Your task to perform on an android device: allow notifications from all sites in the chrome app Image 0: 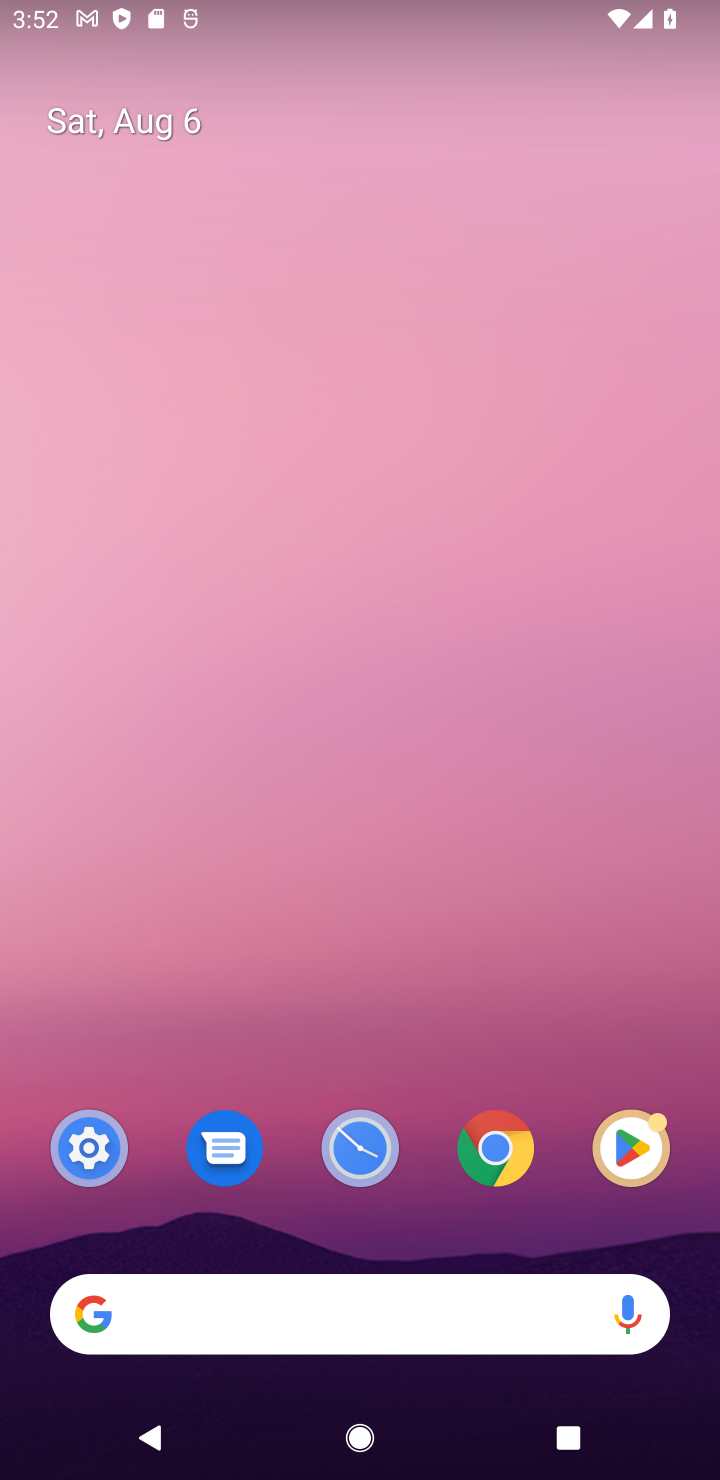
Step 0: drag from (290, 909) to (344, 398)
Your task to perform on an android device: allow notifications from all sites in the chrome app Image 1: 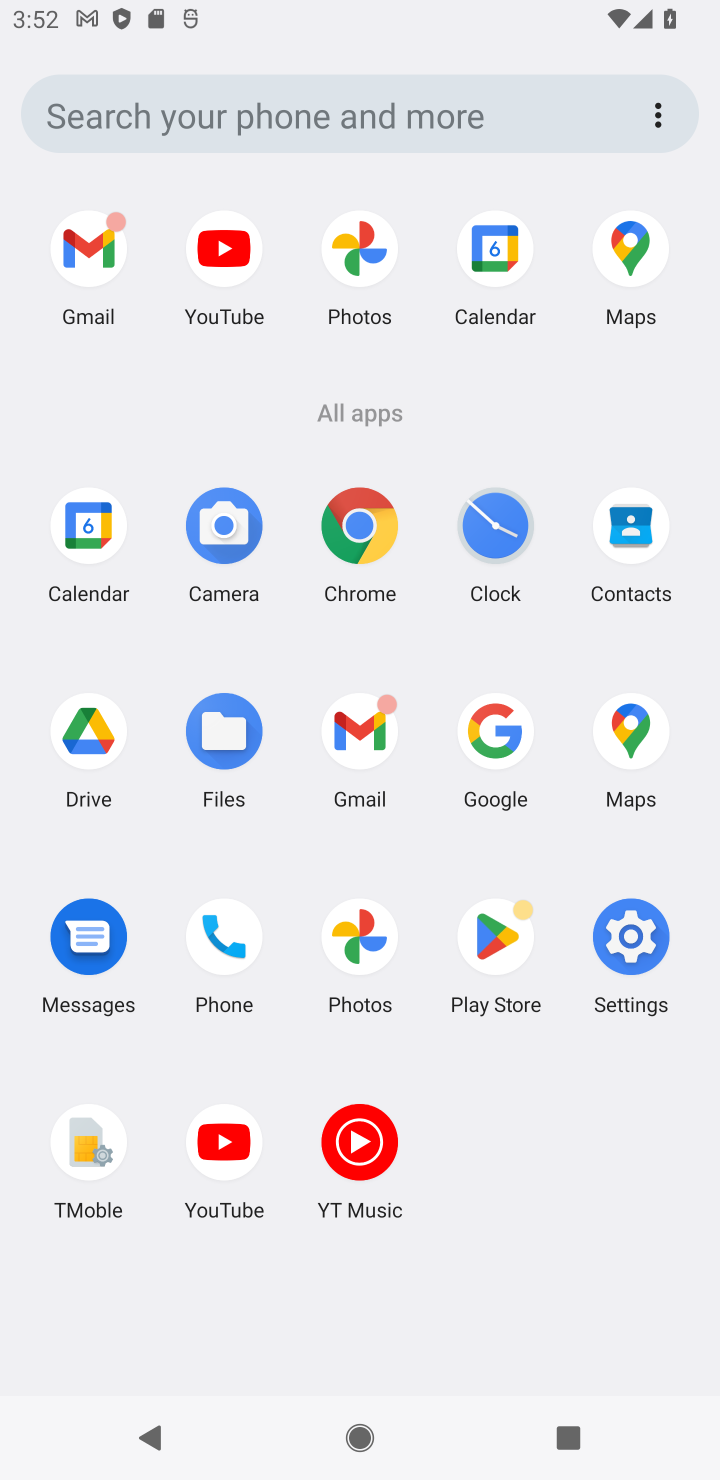
Step 1: click (345, 535)
Your task to perform on an android device: allow notifications from all sites in the chrome app Image 2: 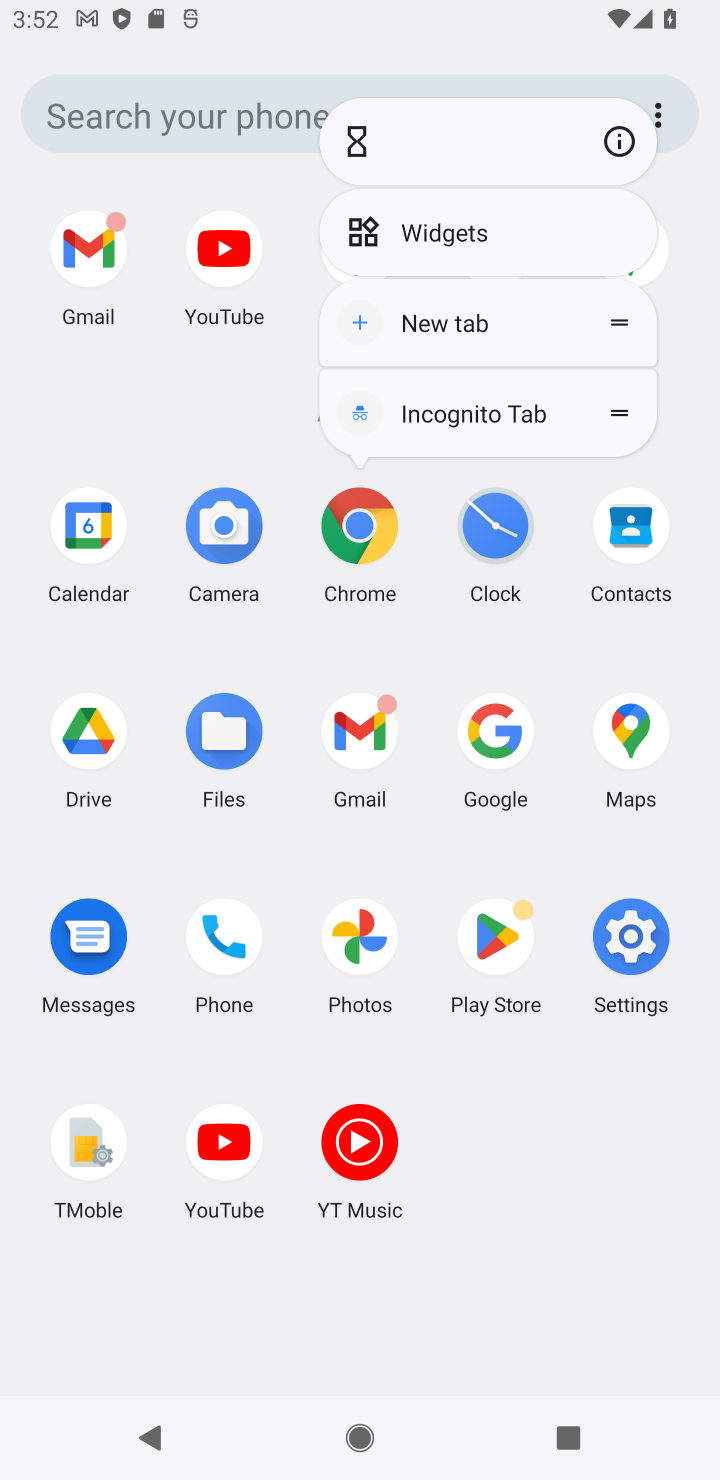
Step 2: click (606, 133)
Your task to perform on an android device: allow notifications from all sites in the chrome app Image 3: 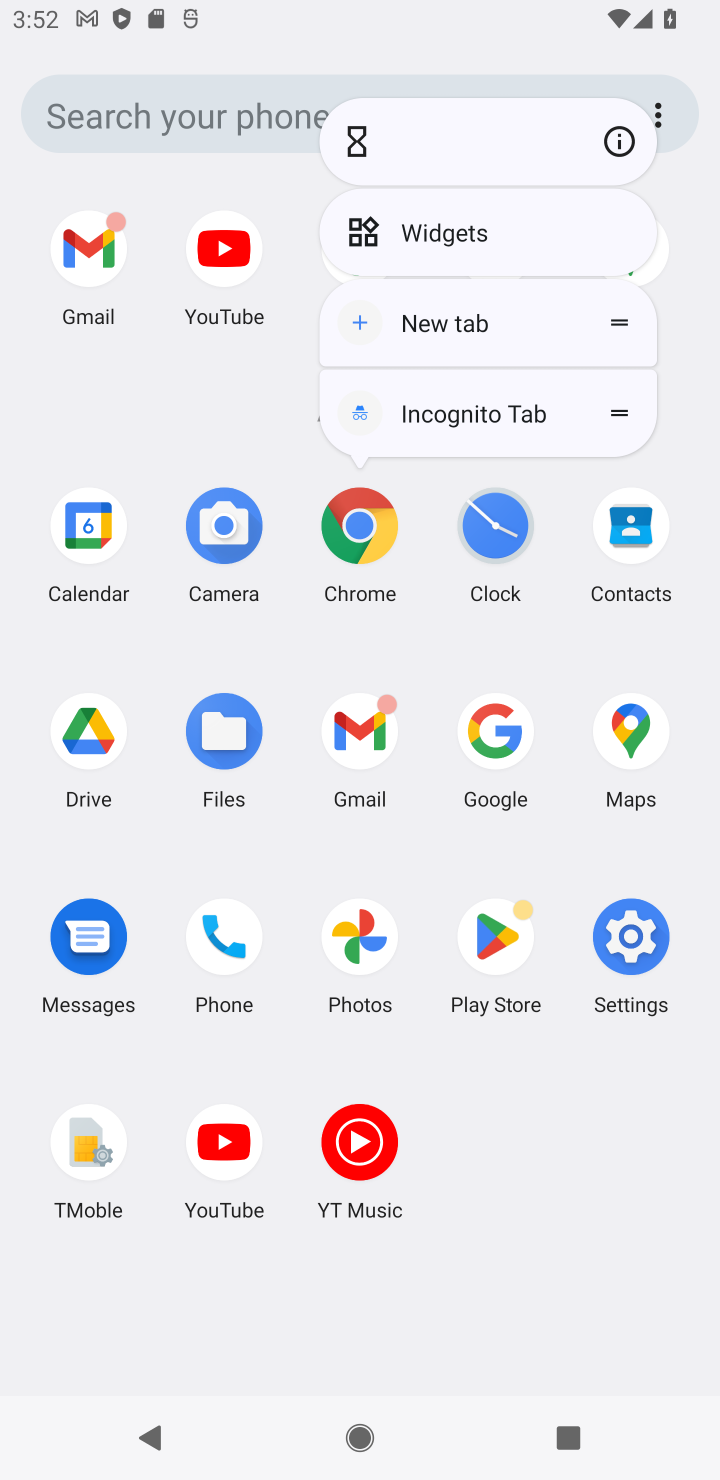
Step 3: click (613, 160)
Your task to perform on an android device: allow notifications from all sites in the chrome app Image 4: 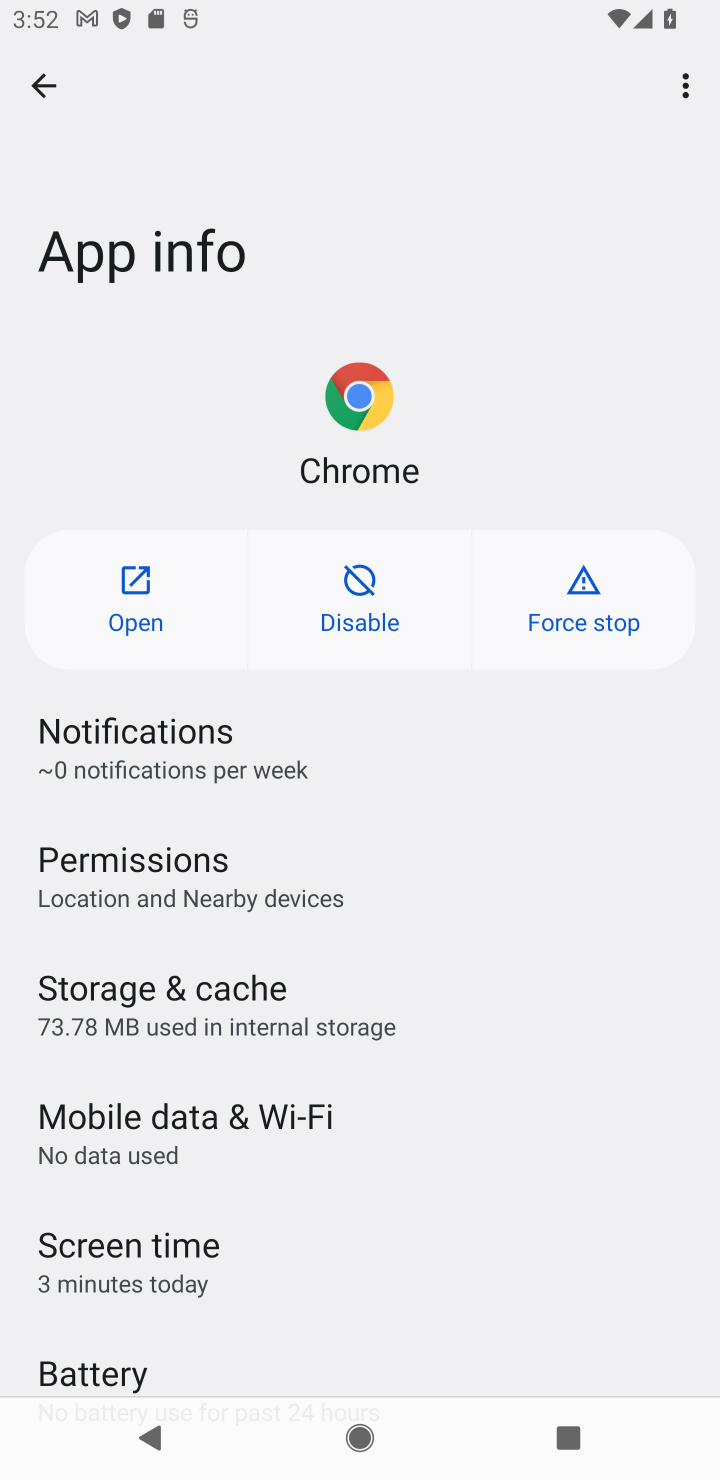
Step 4: click (116, 628)
Your task to perform on an android device: allow notifications from all sites in the chrome app Image 5: 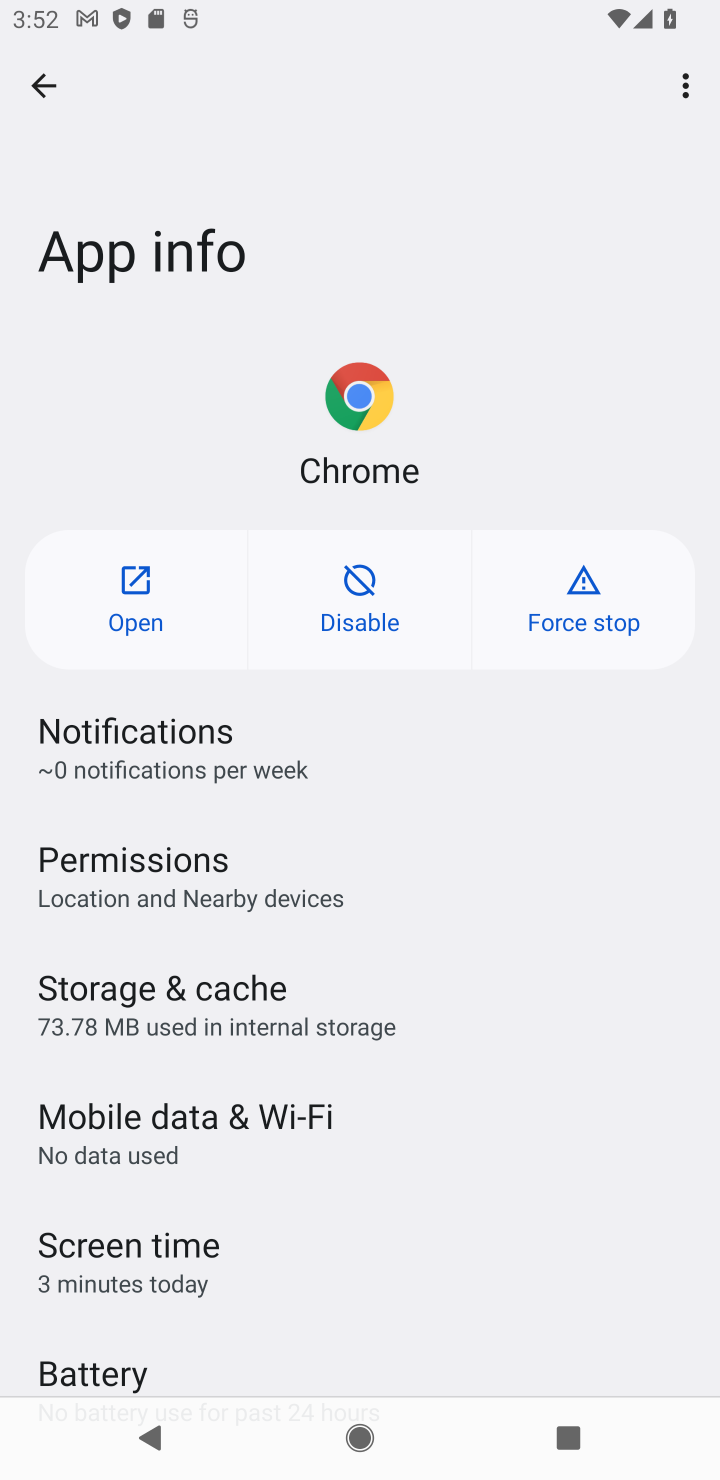
Step 5: click (114, 605)
Your task to perform on an android device: allow notifications from all sites in the chrome app Image 6: 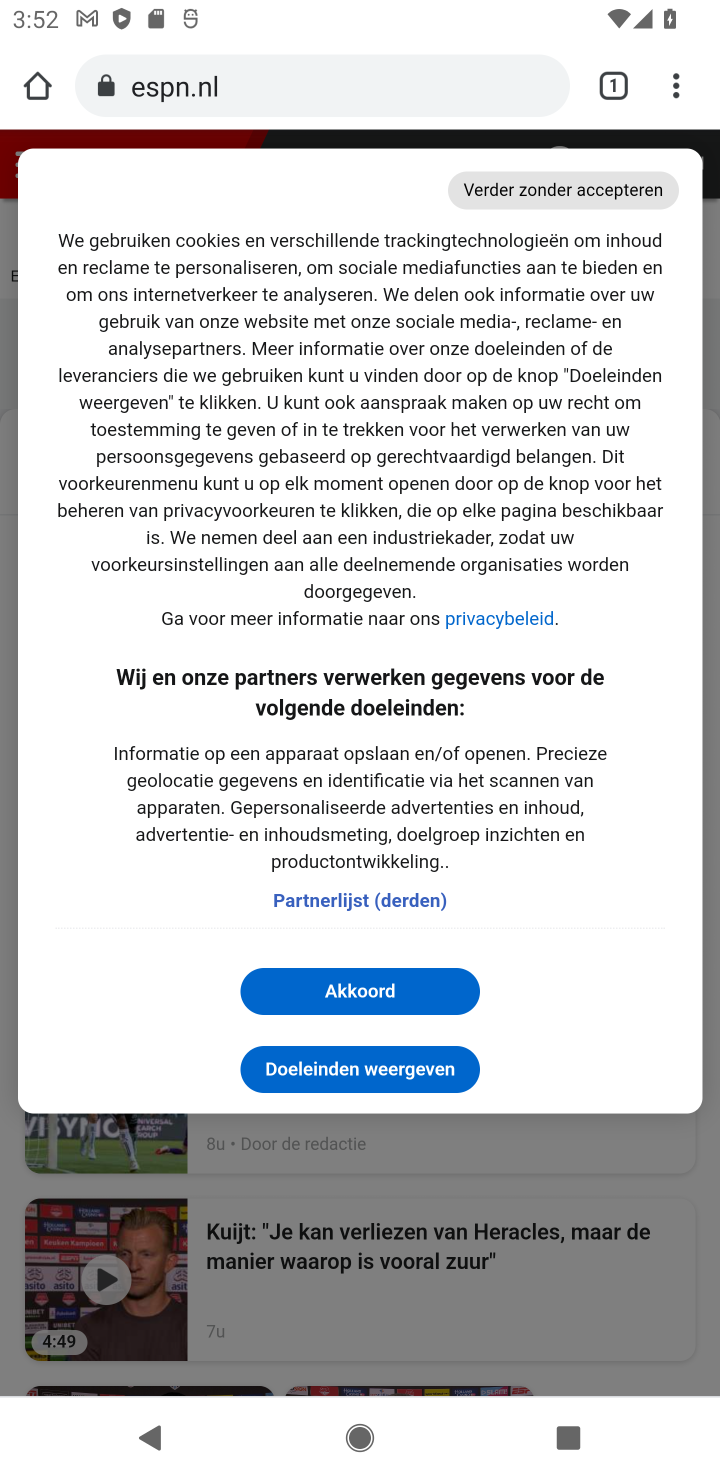
Step 6: drag from (666, 89) to (452, 1034)
Your task to perform on an android device: allow notifications from all sites in the chrome app Image 7: 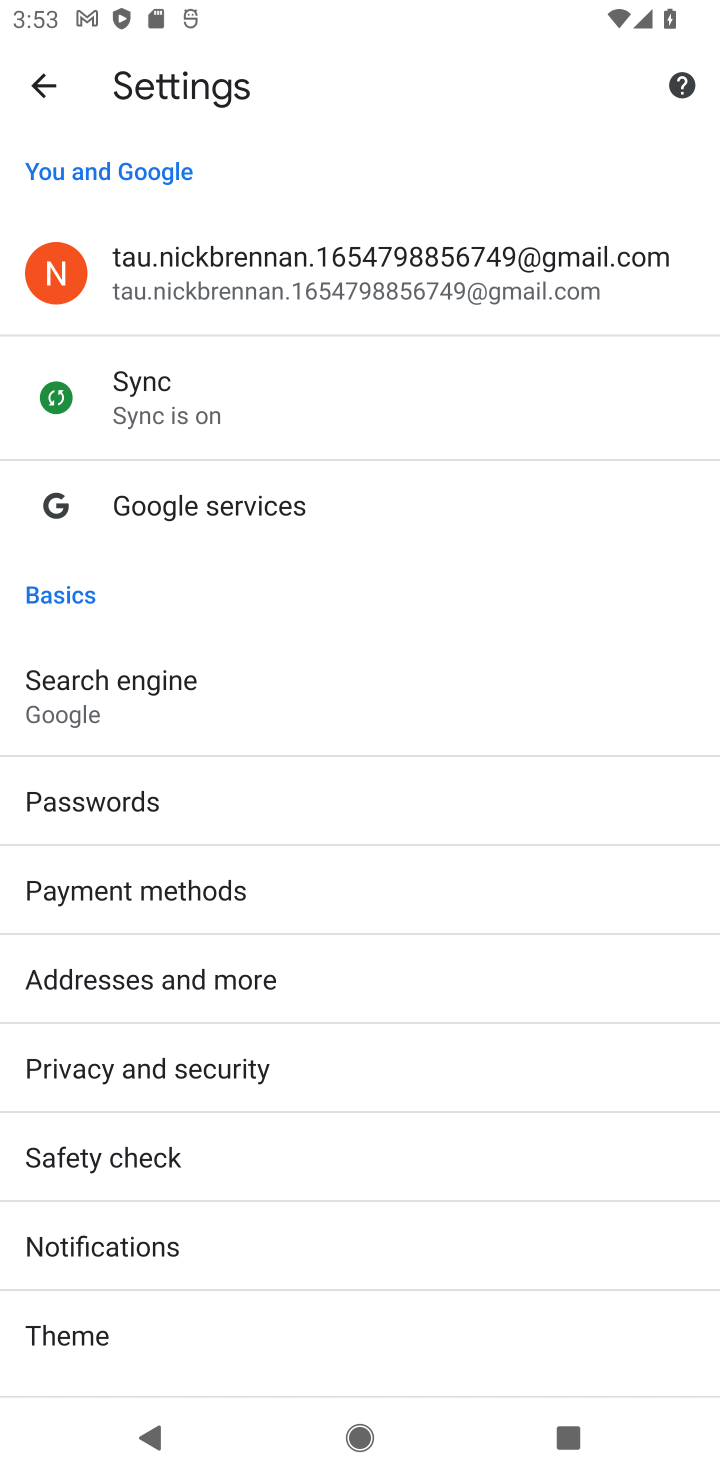
Step 7: drag from (261, 1240) to (344, 482)
Your task to perform on an android device: allow notifications from all sites in the chrome app Image 8: 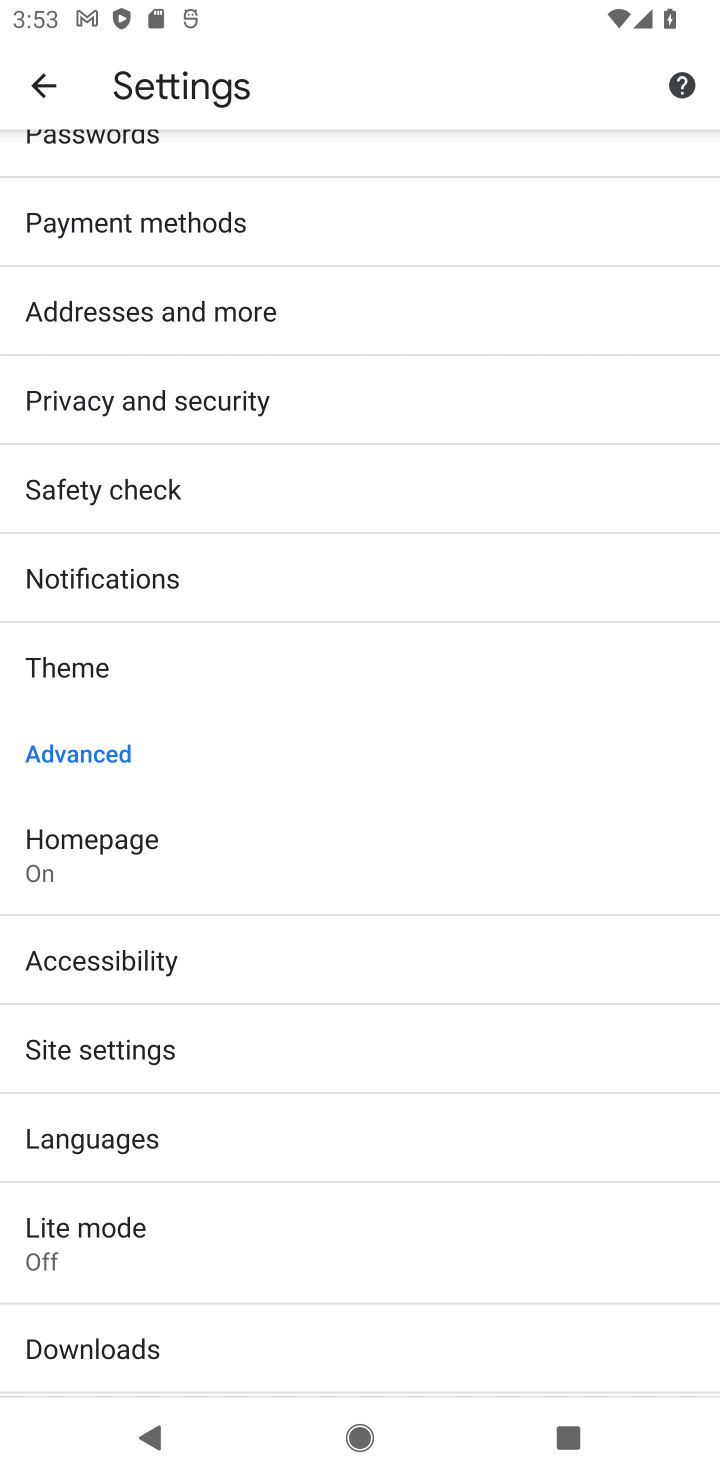
Step 8: click (175, 1038)
Your task to perform on an android device: allow notifications from all sites in the chrome app Image 9: 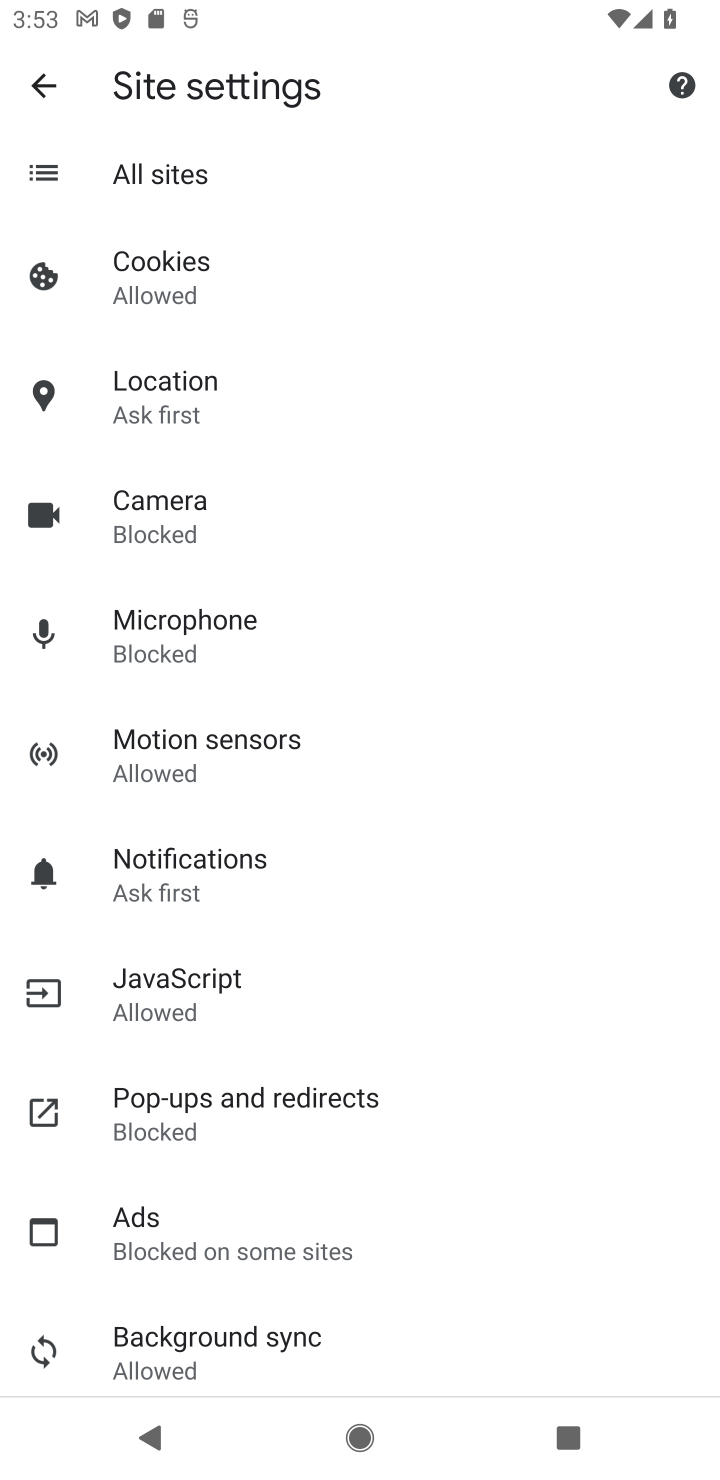
Step 9: click (241, 866)
Your task to perform on an android device: allow notifications from all sites in the chrome app Image 10: 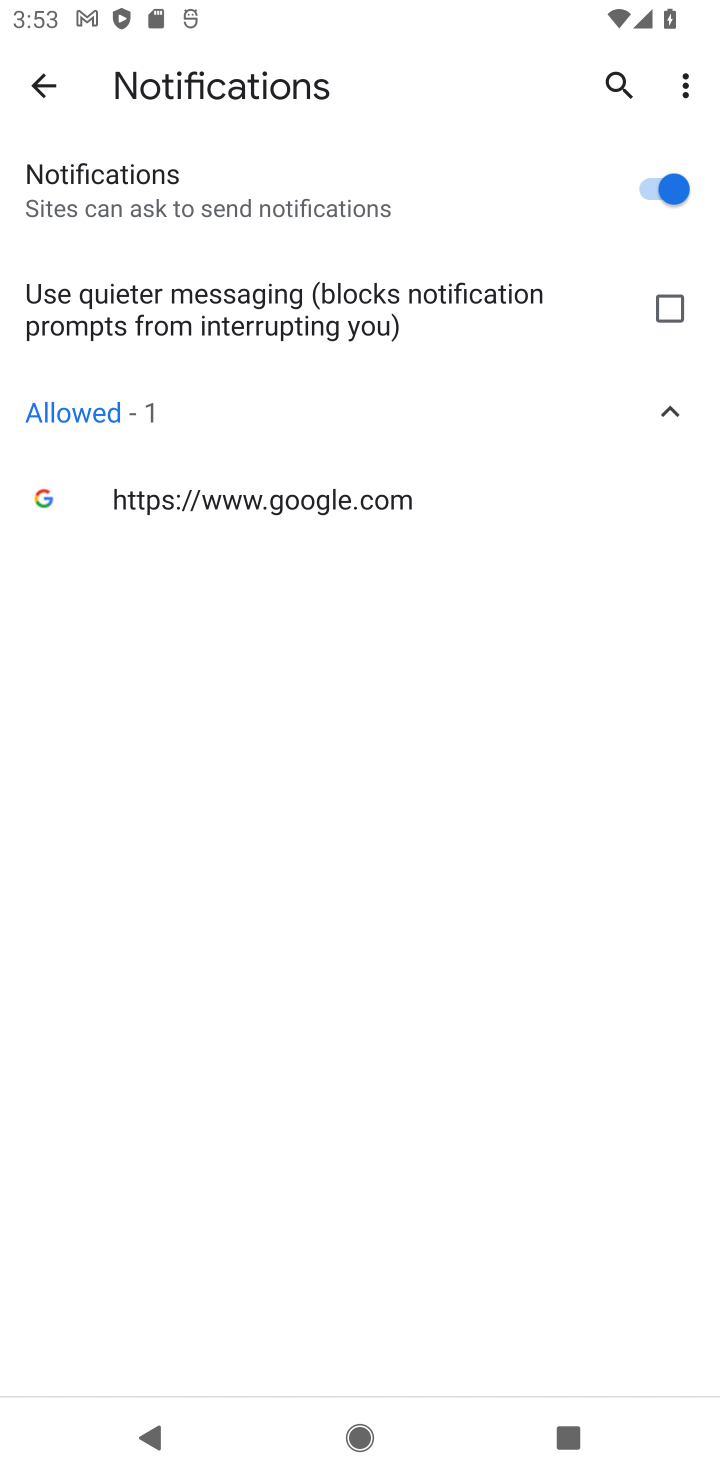
Step 10: task complete